Your task to perform on an android device: Open Android settings Image 0: 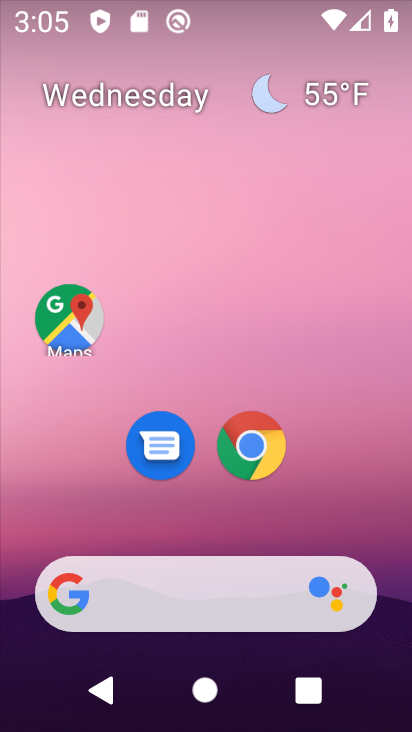
Step 0: drag from (332, 470) to (251, 0)
Your task to perform on an android device: Open Android settings Image 1: 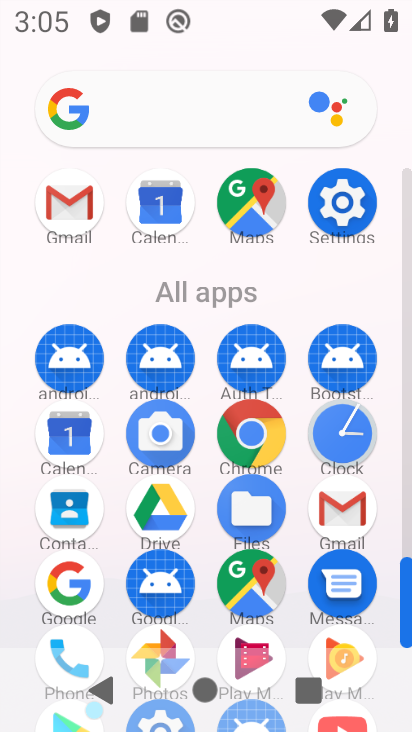
Step 1: click (332, 220)
Your task to perform on an android device: Open Android settings Image 2: 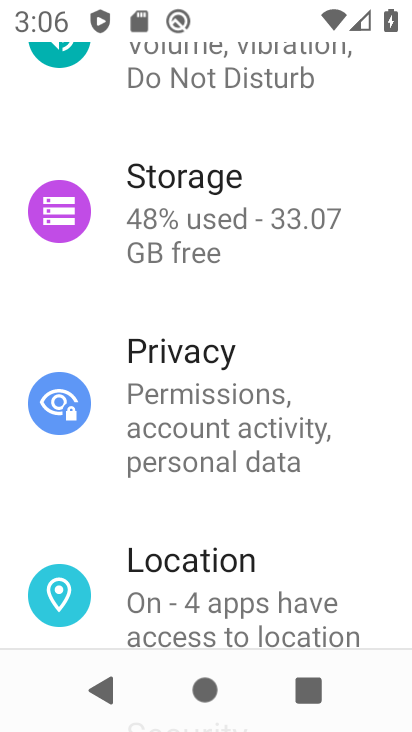
Step 2: task complete